Your task to perform on an android device: find snoozed emails in the gmail app Image 0: 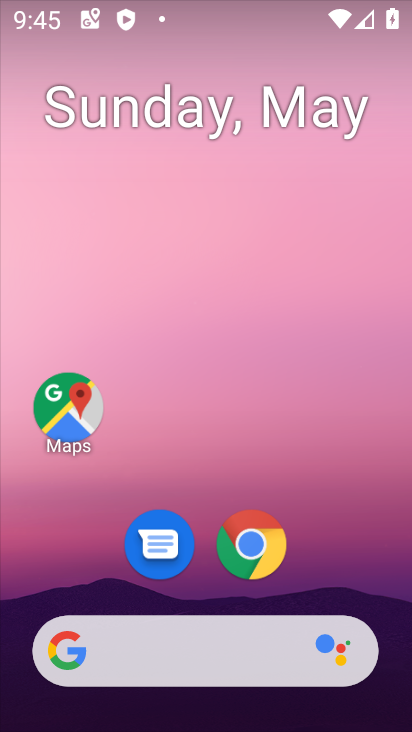
Step 0: drag from (337, 563) to (359, 1)
Your task to perform on an android device: find snoozed emails in the gmail app Image 1: 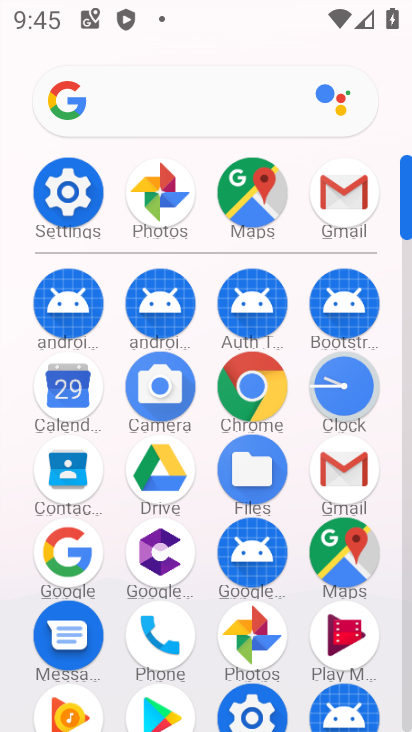
Step 1: click (344, 186)
Your task to perform on an android device: find snoozed emails in the gmail app Image 2: 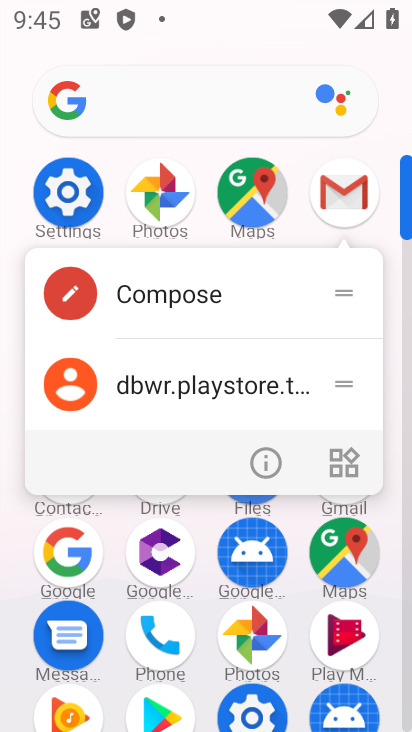
Step 2: click (345, 185)
Your task to perform on an android device: find snoozed emails in the gmail app Image 3: 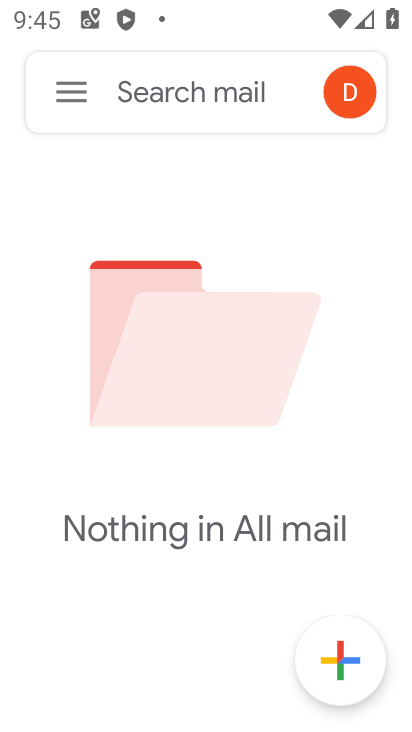
Step 3: click (78, 81)
Your task to perform on an android device: find snoozed emails in the gmail app Image 4: 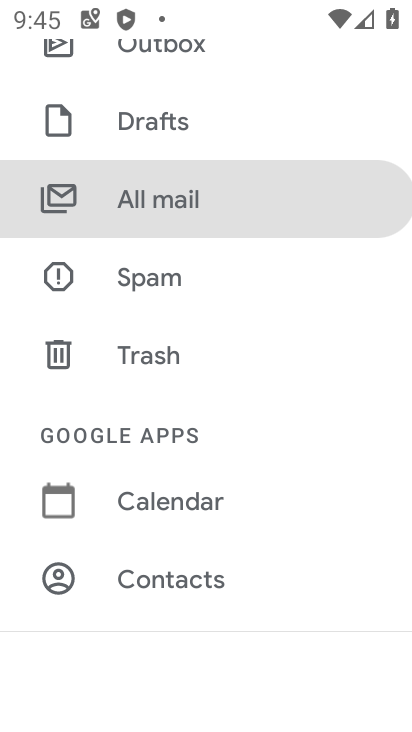
Step 4: drag from (160, 231) to (234, 702)
Your task to perform on an android device: find snoozed emails in the gmail app Image 5: 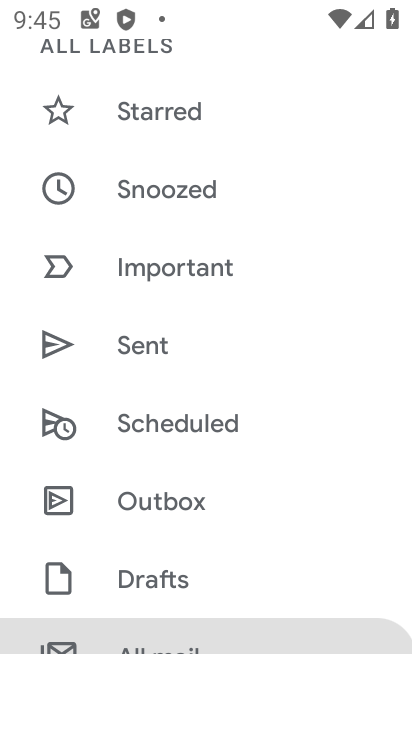
Step 5: click (181, 194)
Your task to perform on an android device: find snoozed emails in the gmail app Image 6: 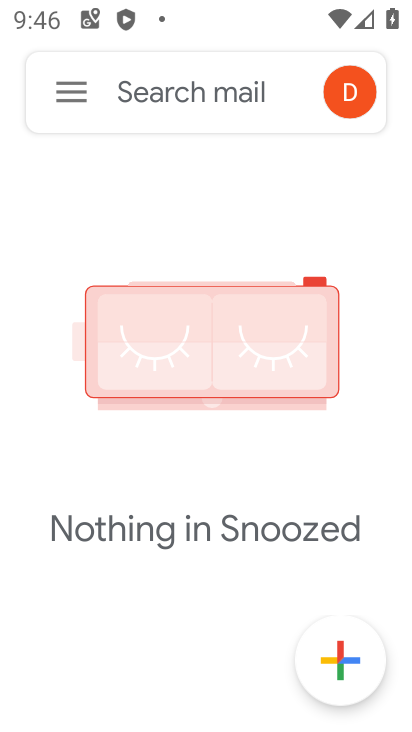
Step 6: task complete